Your task to perform on an android device: Go to Google maps Image 0: 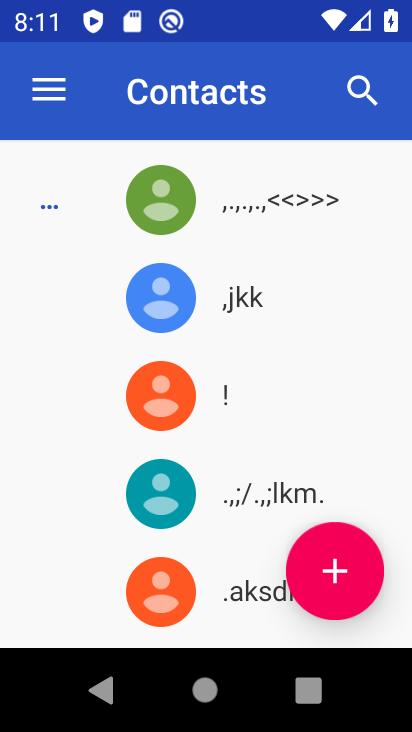
Step 0: press home button
Your task to perform on an android device: Go to Google maps Image 1: 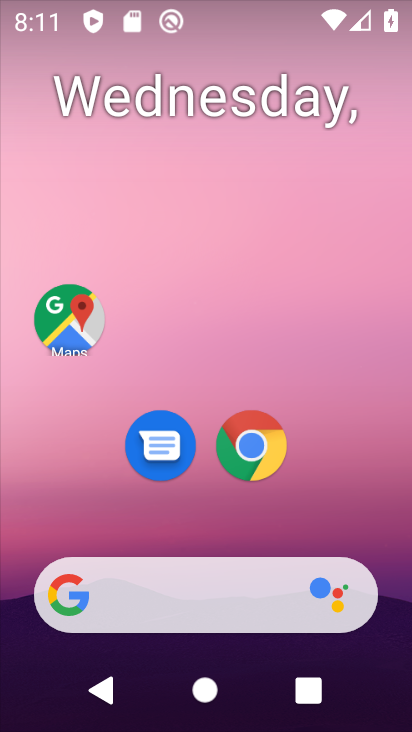
Step 1: drag from (172, 724) to (180, 86)
Your task to perform on an android device: Go to Google maps Image 2: 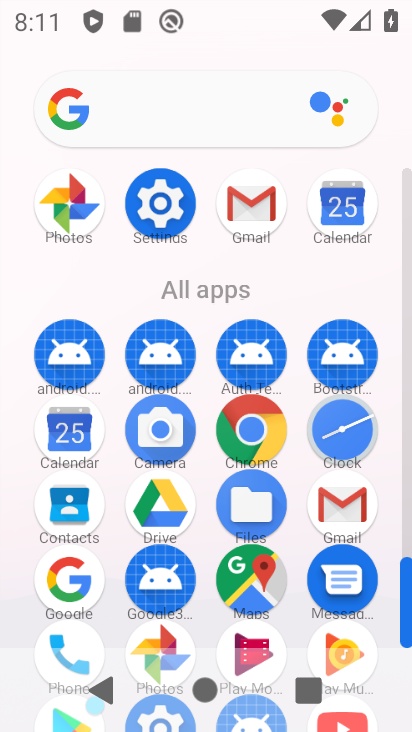
Step 2: click (250, 566)
Your task to perform on an android device: Go to Google maps Image 3: 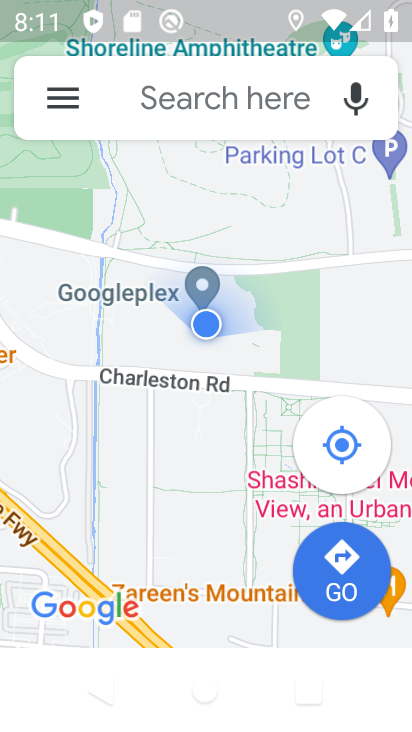
Step 3: task complete